Your task to perform on an android device: turn off location history Image 0: 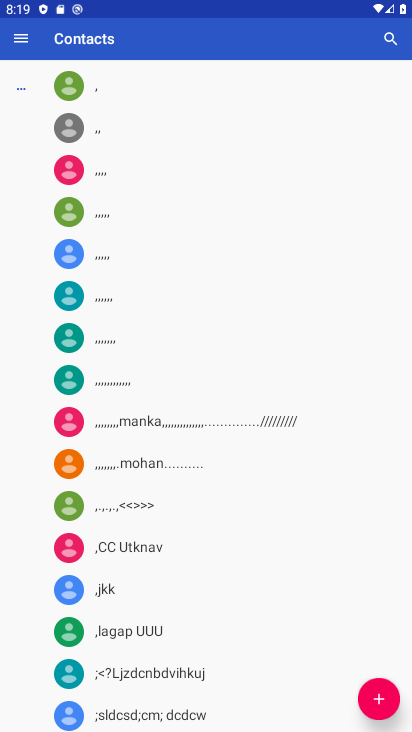
Step 0: press home button
Your task to perform on an android device: turn off location history Image 1: 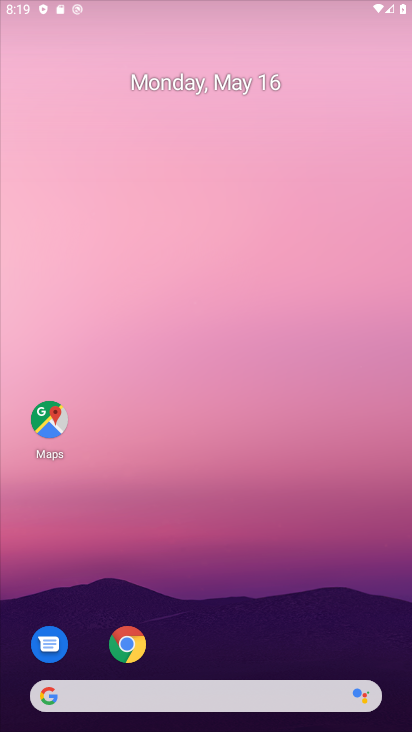
Step 1: drag from (224, 592) to (243, 107)
Your task to perform on an android device: turn off location history Image 2: 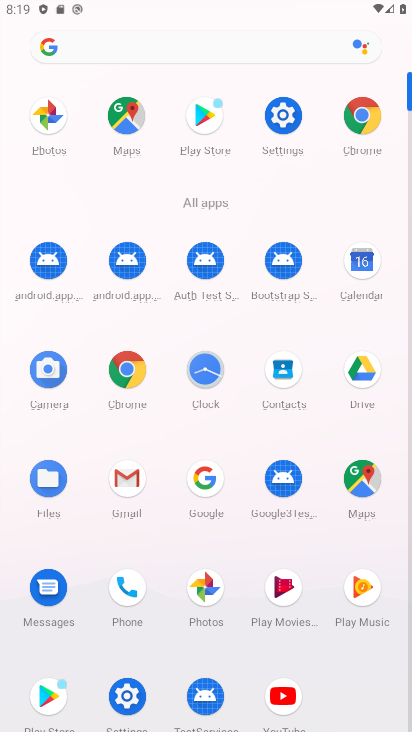
Step 2: click (287, 100)
Your task to perform on an android device: turn off location history Image 3: 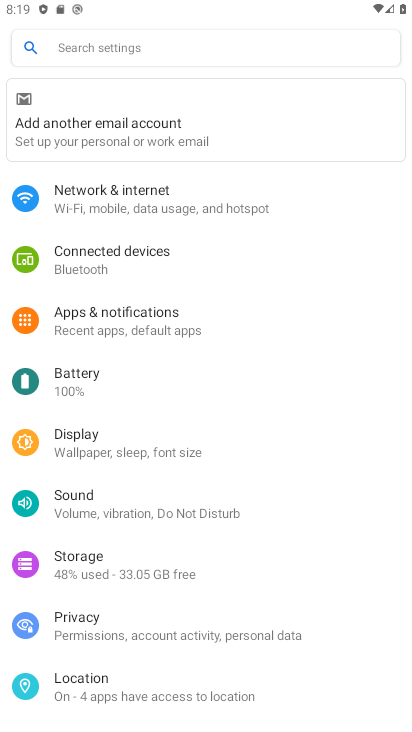
Step 3: click (72, 689)
Your task to perform on an android device: turn off location history Image 4: 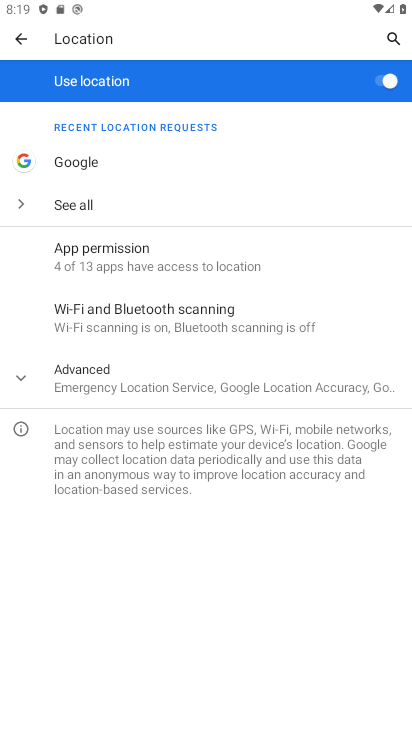
Step 4: click (120, 381)
Your task to perform on an android device: turn off location history Image 5: 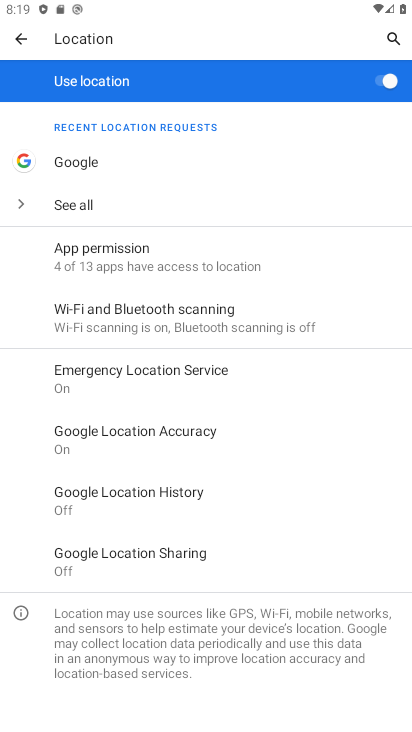
Step 5: task complete